Your task to perform on an android device: When is my next appointment? Image 0: 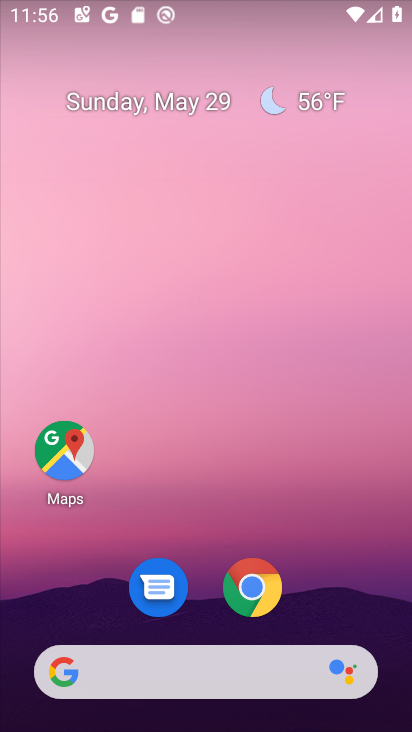
Step 0: drag from (383, 602) to (282, 116)
Your task to perform on an android device: When is my next appointment? Image 1: 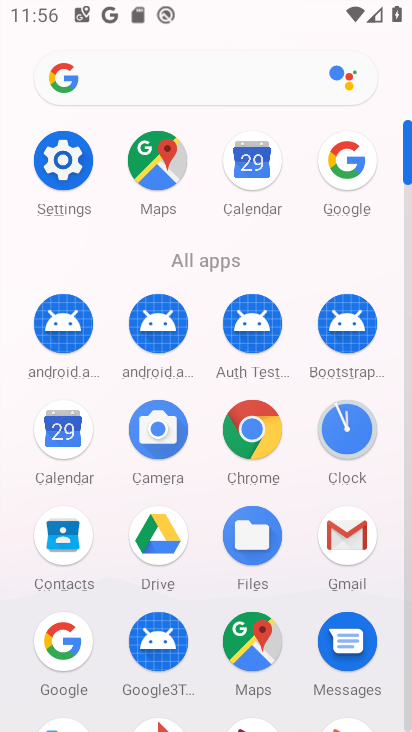
Step 1: click (263, 153)
Your task to perform on an android device: When is my next appointment? Image 2: 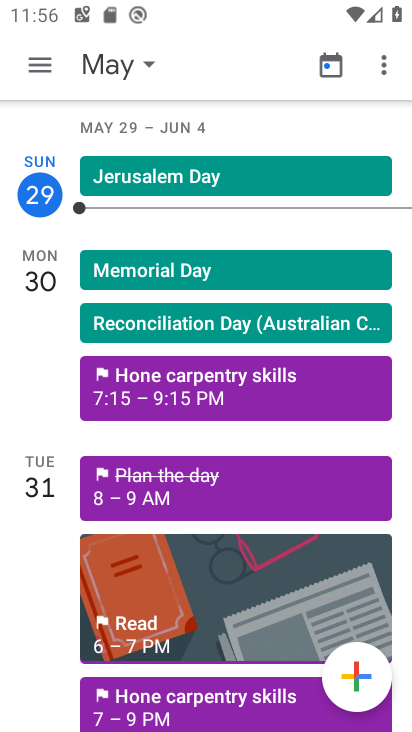
Step 2: task complete